Your task to perform on an android device: Go to Wikipedia Image 0: 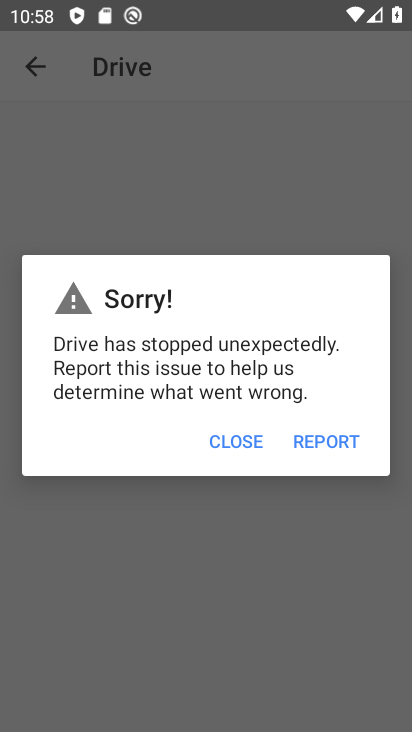
Step 0: press home button
Your task to perform on an android device: Go to Wikipedia Image 1: 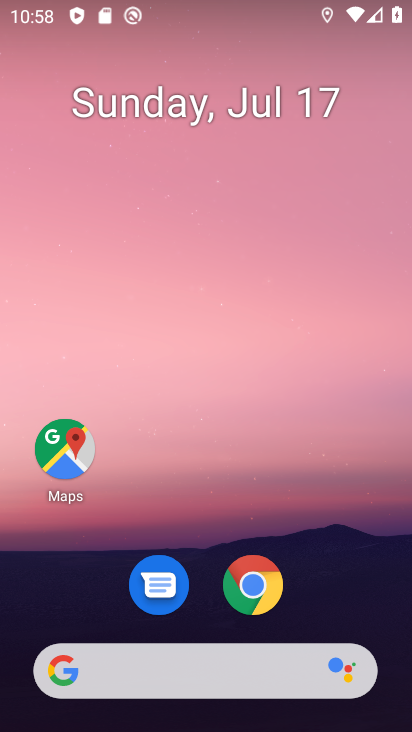
Step 1: click (259, 591)
Your task to perform on an android device: Go to Wikipedia Image 2: 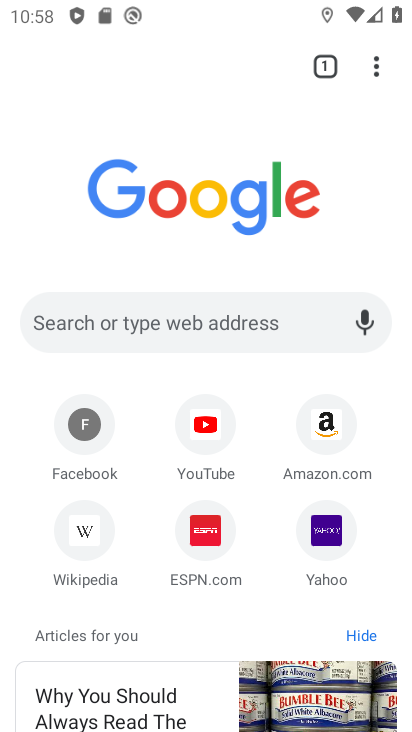
Step 2: click (93, 533)
Your task to perform on an android device: Go to Wikipedia Image 3: 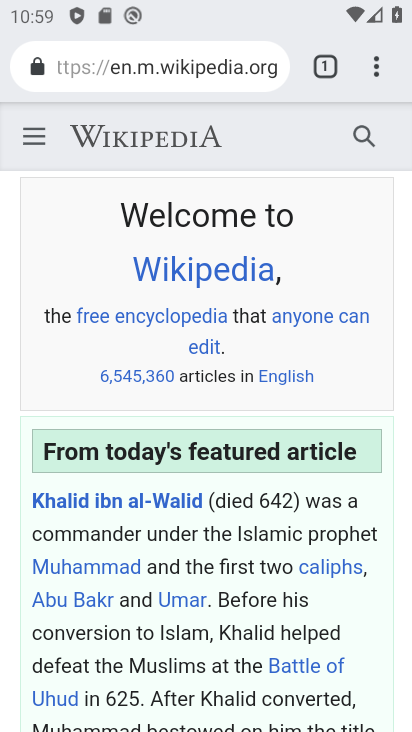
Step 3: task complete